Your task to perform on an android device: Go to network settings Image 0: 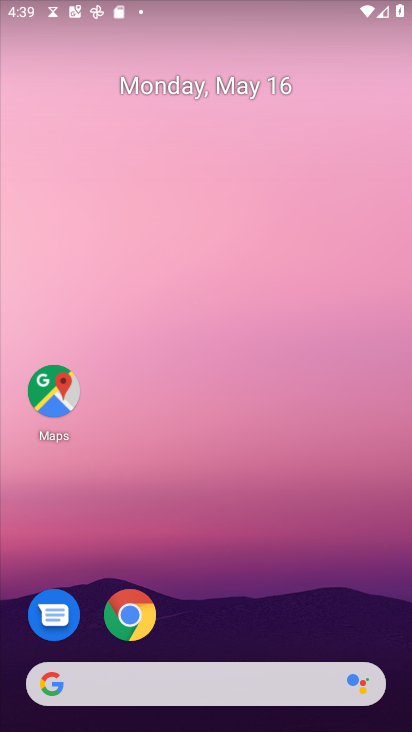
Step 0: drag from (225, 606) to (243, 135)
Your task to perform on an android device: Go to network settings Image 1: 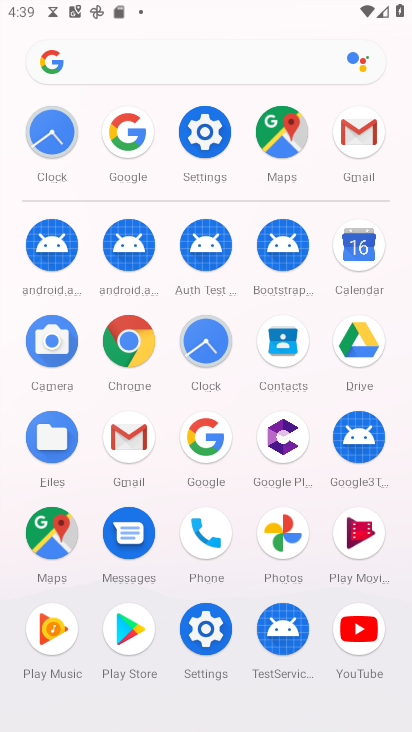
Step 1: click (204, 146)
Your task to perform on an android device: Go to network settings Image 2: 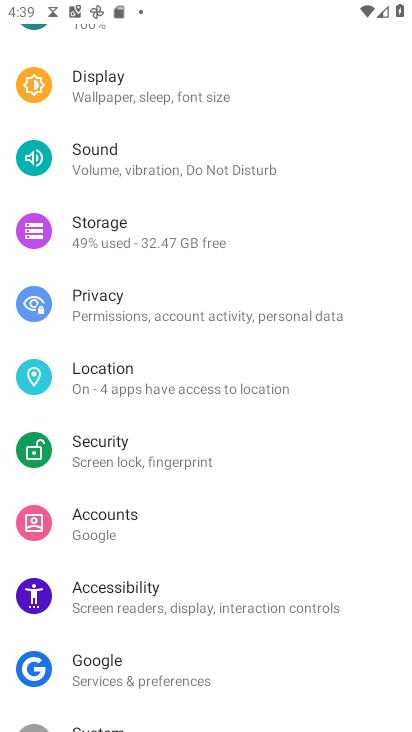
Step 2: drag from (152, 164) to (155, 503)
Your task to perform on an android device: Go to network settings Image 3: 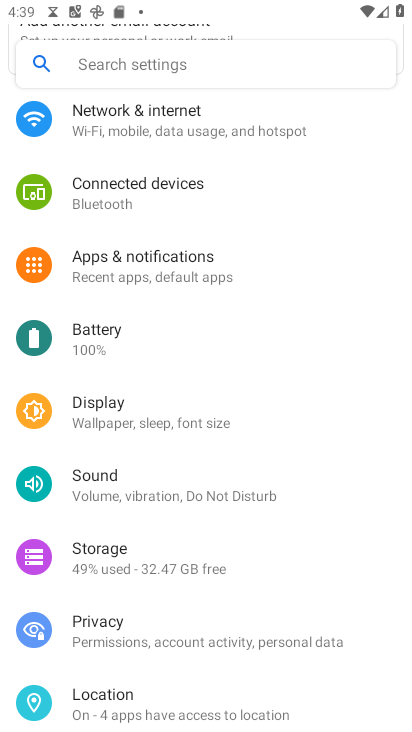
Step 3: drag from (175, 174) to (150, 582)
Your task to perform on an android device: Go to network settings Image 4: 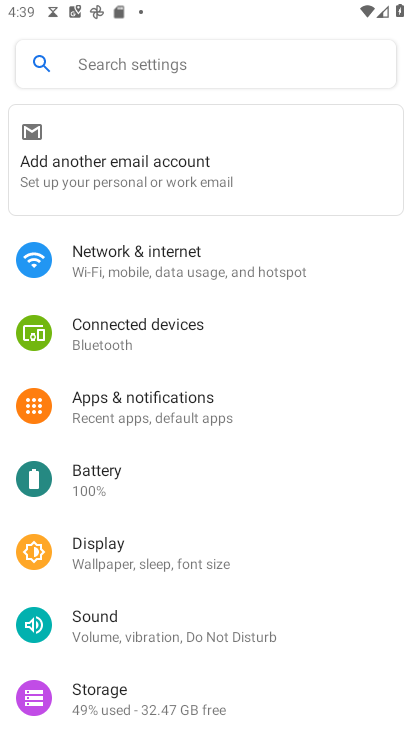
Step 4: click (154, 265)
Your task to perform on an android device: Go to network settings Image 5: 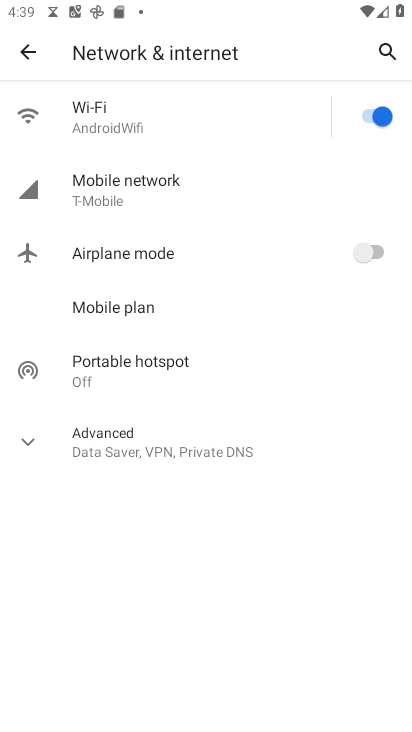
Step 5: task complete